Your task to perform on an android device: turn off improve location accuracy Image 0: 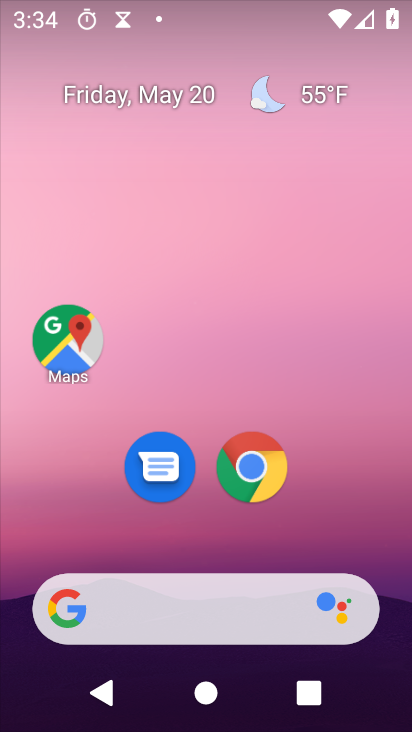
Step 0: drag from (224, 498) to (227, 36)
Your task to perform on an android device: turn off improve location accuracy Image 1: 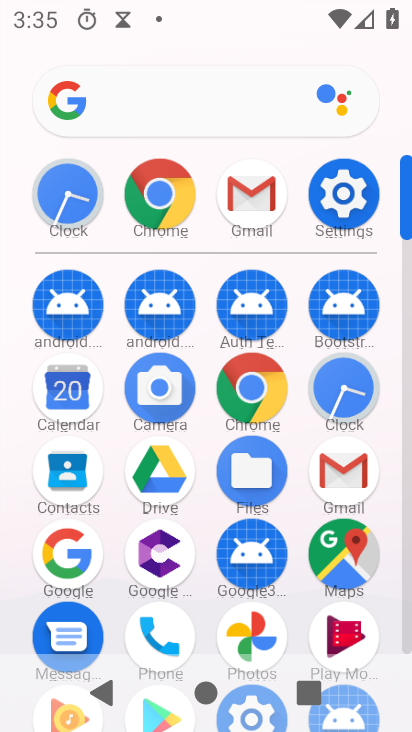
Step 1: click (343, 183)
Your task to perform on an android device: turn off improve location accuracy Image 2: 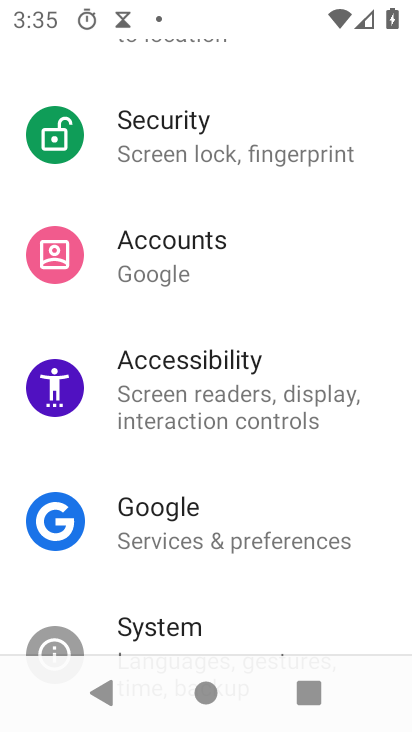
Step 2: drag from (227, 348) to (226, 543)
Your task to perform on an android device: turn off improve location accuracy Image 3: 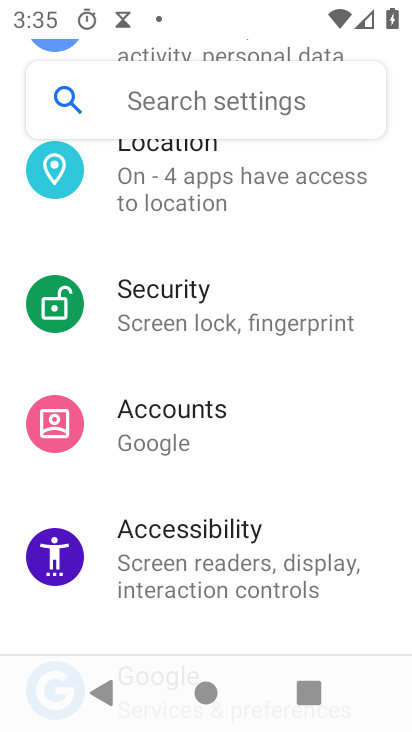
Step 3: click (181, 193)
Your task to perform on an android device: turn off improve location accuracy Image 4: 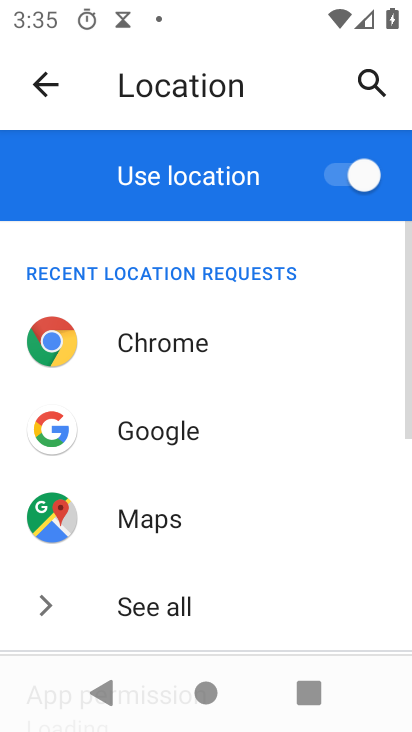
Step 4: drag from (185, 566) to (149, 193)
Your task to perform on an android device: turn off improve location accuracy Image 5: 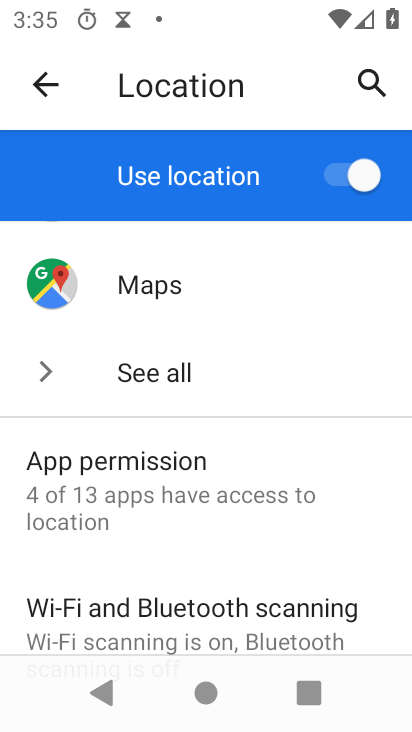
Step 5: drag from (221, 561) to (199, 140)
Your task to perform on an android device: turn off improve location accuracy Image 6: 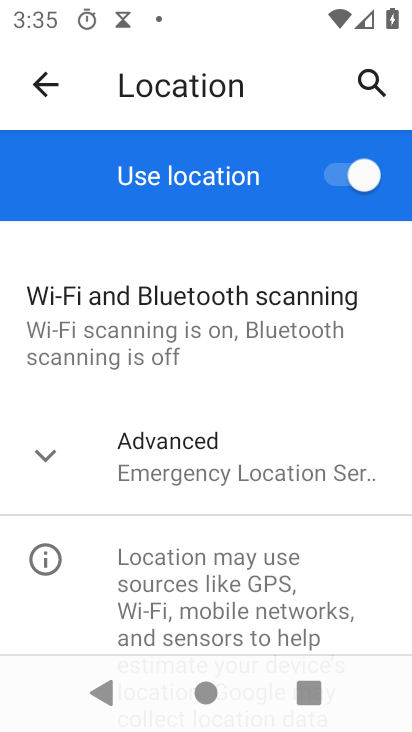
Step 6: click (184, 476)
Your task to perform on an android device: turn off improve location accuracy Image 7: 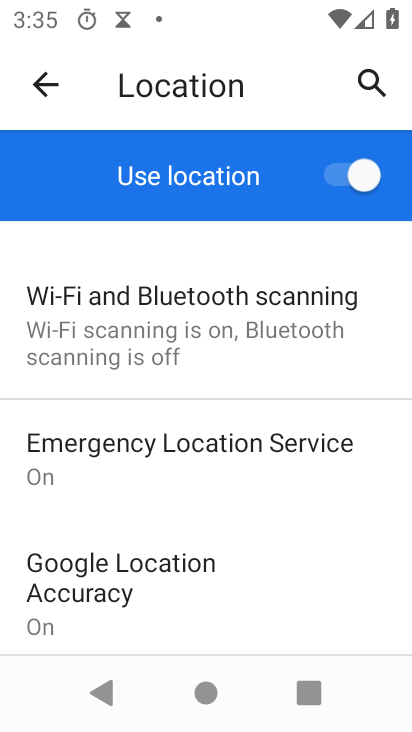
Step 7: drag from (212, 581) to (201, 234)
Your task to perform on an android device: turn off improve location accuracy Image 8: 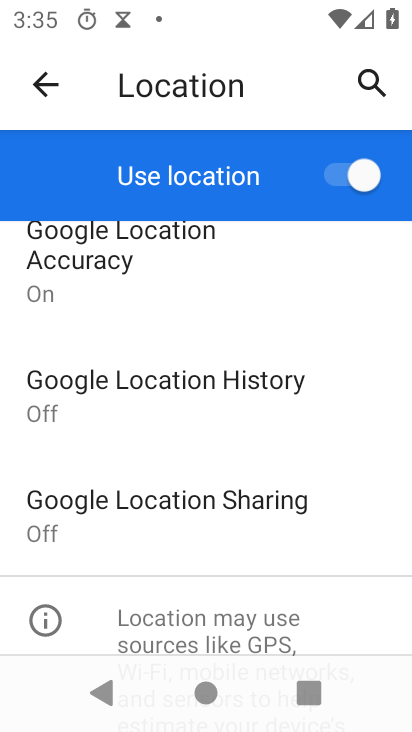
Step 8: click (152, 269)
Your task to perform on an android device: turn off improve location accuracy Image 9: 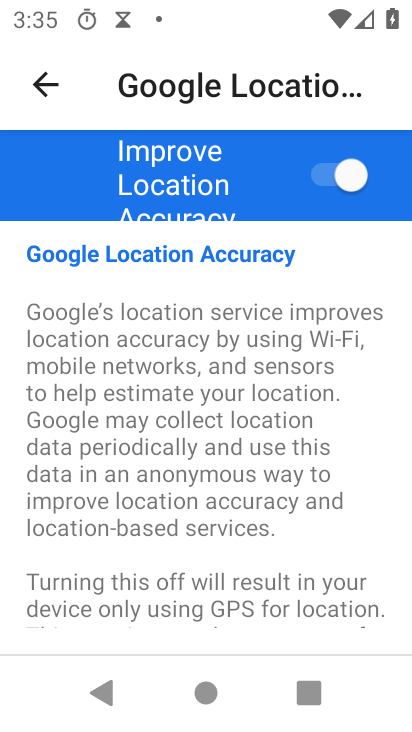
Step 9: click (335, 165)
Your task to perform on an android device: turn off improve location accuracy Image 10: 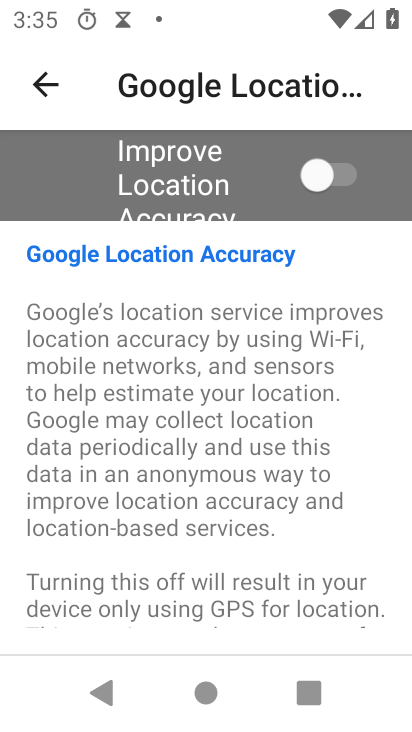
Step 10: task complete